Your task to perform on an android device: Open Android settings Image 0: 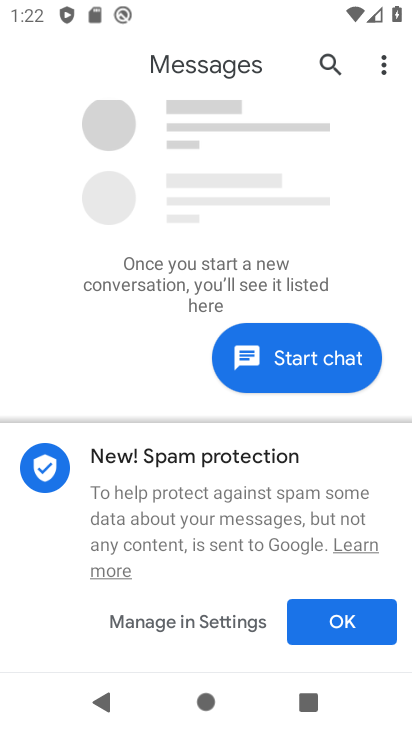
Step 0: press home button
Your task to perform on an android device: Open Android settings Image 1: 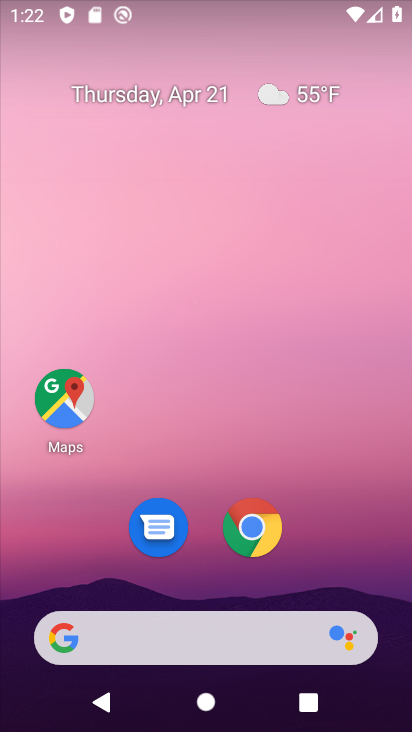
Step 1: drag from (365, 541) to (369, 101)
Your task to perform on an android device: Open Android settings Image 2: 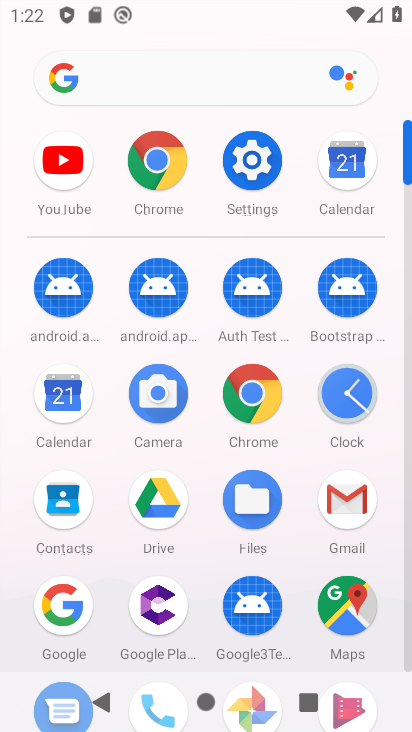
Step 2: click (257, 170)
Your task to perform on an android device: Open Android settings Image 3: 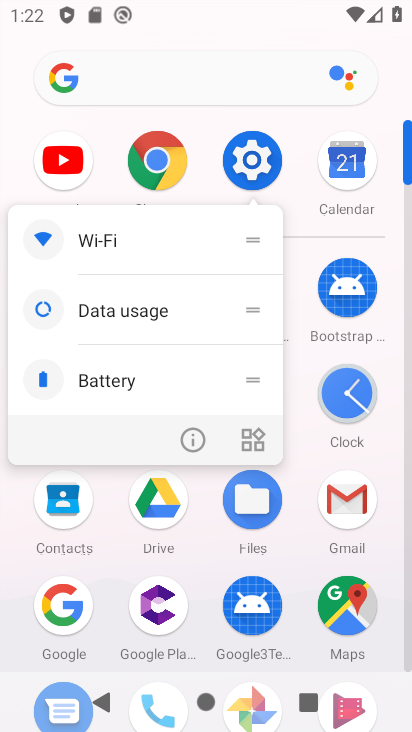
Step 3: click (257, 170)
Your task to perform on an android device: Open Android settings Image 4: 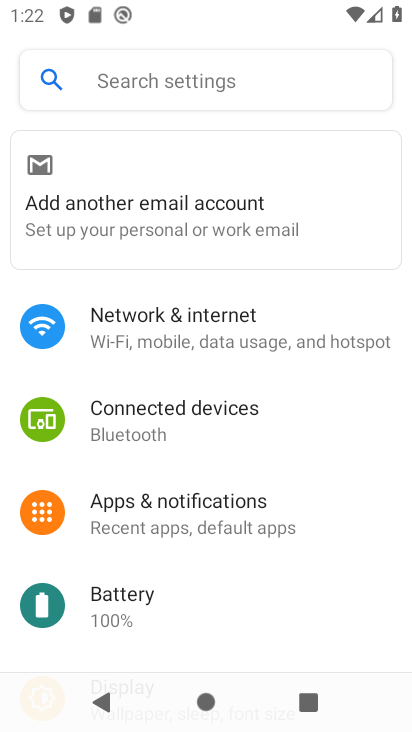
Step 4: drag from (349, 505) to (342, 356)
Your task to perform on an android device: Open Android settings Image 5: 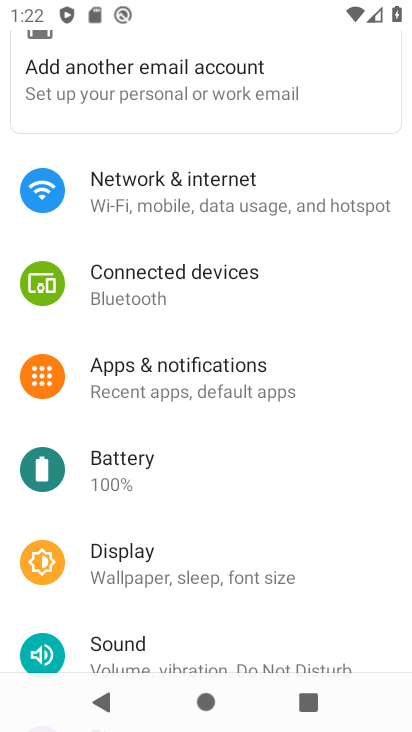
Step 5: drag from (346, 502) to (351, 368)
Your task to perform on an android device: Open Android settings Image 6: 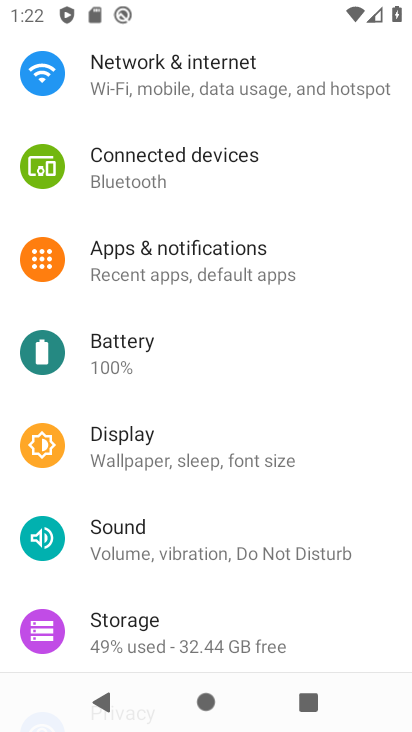
Step 6: drag from (342, 489) to (359, 353)
Your task to perform on an android device: Open Android settings Image 7: 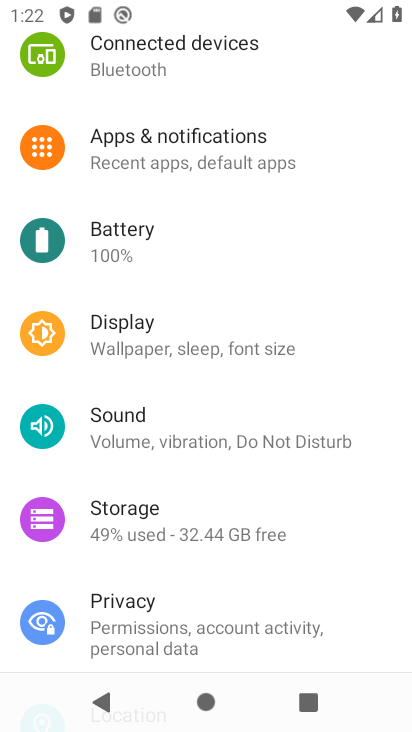
Step 7: drag from (347, 540) to (368, 389)
Your task to perform on an android device: Open Android settings Image 8: 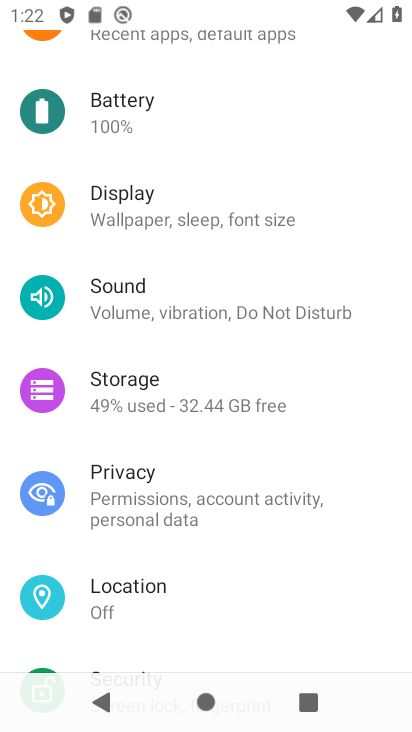
Step 8: drag from (344, 564) to (368, 420)
Your task to perform on an android device: Open Android settings Image 9: 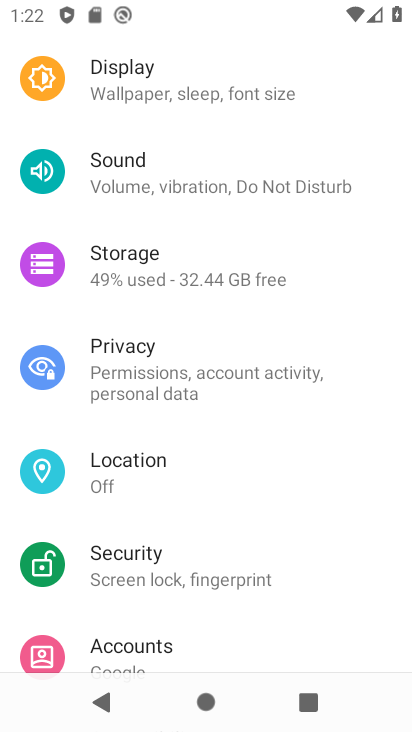
Step 9: drag from (347, 553) to (362, 400)
Your task to perform on an android device: Open Android settings Image 10: 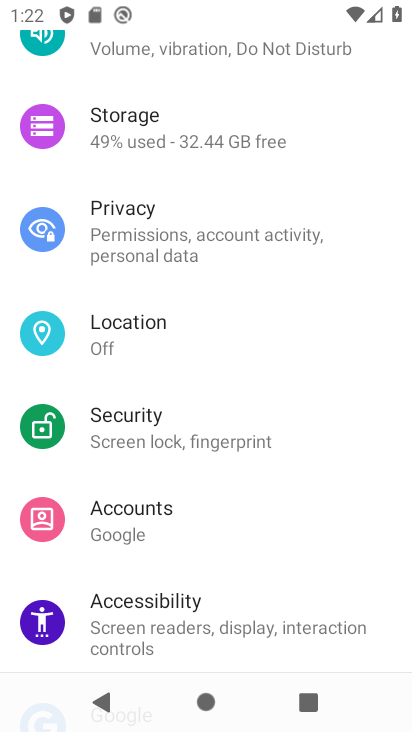
Step 10: drag from (338, 547) to (347, 407)
Your task to perform on an android device: Open Android settings Image 11: 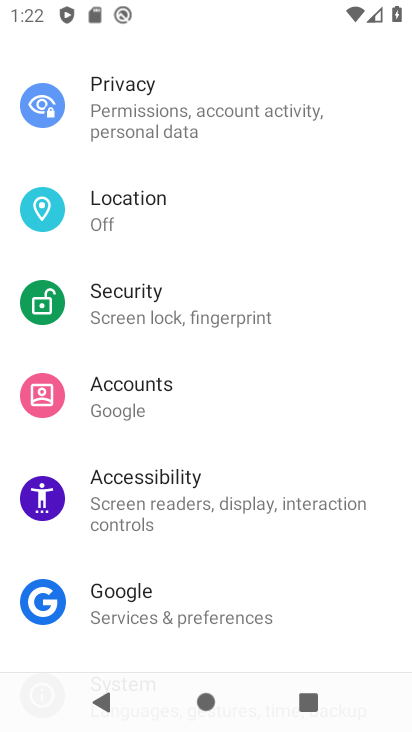
Step 11: drag from (336, 586) to (344, 411)
Your task to perform on an android device: Open Android settings Image 12: 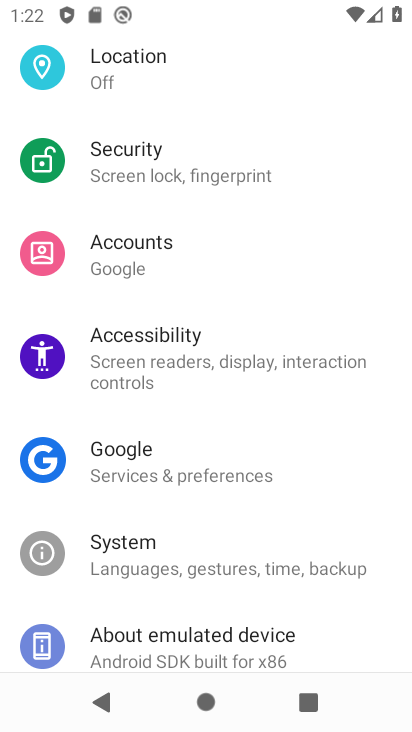
Step 12: drag from (338, 623) to (347, 449)
Your task to perform on an android device: Open Android settings Image 13: 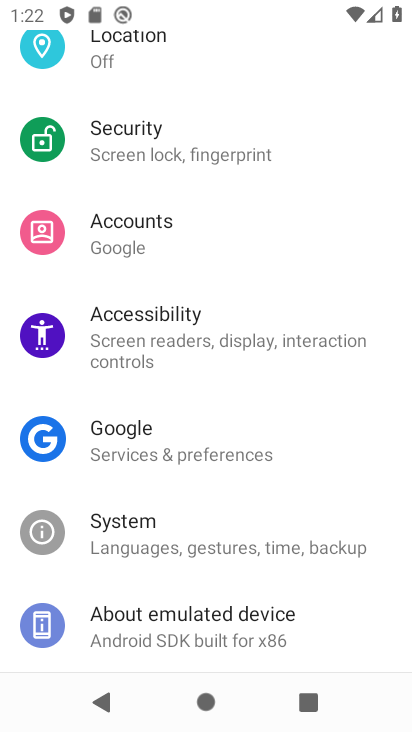
Step 13: click (278, 532)
Your task to perform on an android device: Open Android settings Image 14: 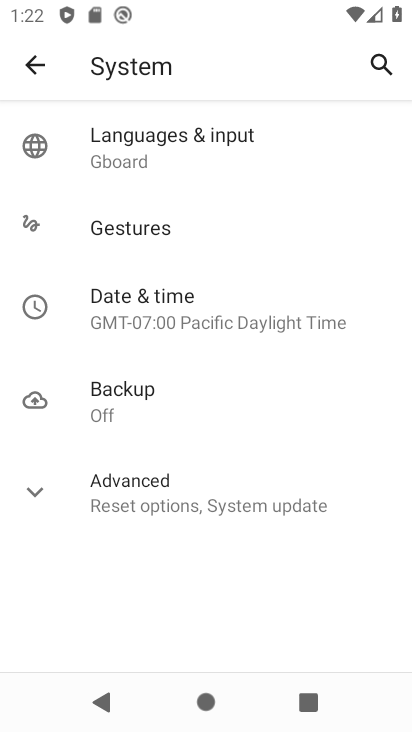
Step 14: click (237, 502)
Your task to perform on an android device: Open Android settings Image 15: 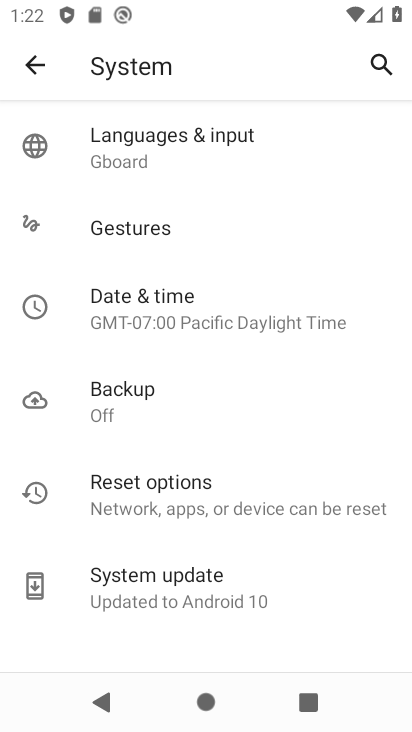
Step 15: task complete